Your task to perform on an android device: change the clock display to digital Image 0: 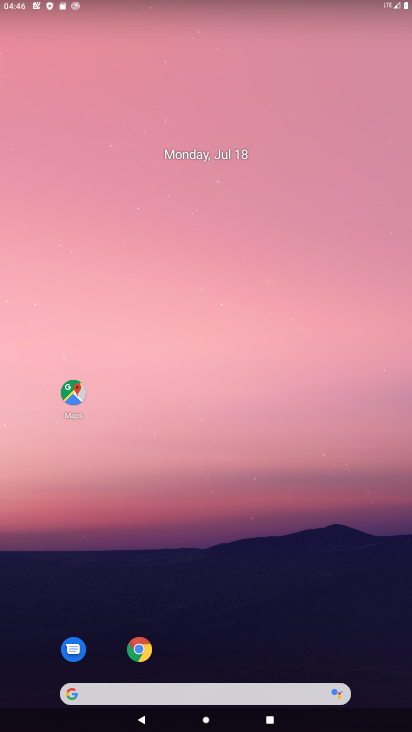
Step 0: drag from (231, 632) to (245, 92)
Your task to perform on an android device: change the clock display to digital Image 1: 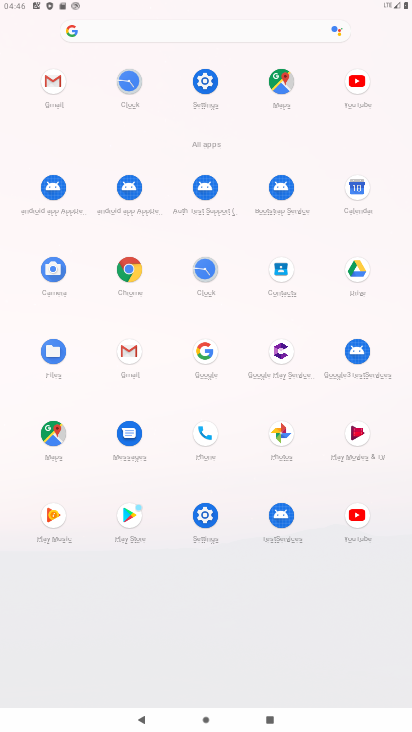
Step 1: click (139, 86)
Your task to perform on an android device: change the clock display to digital Image 2: 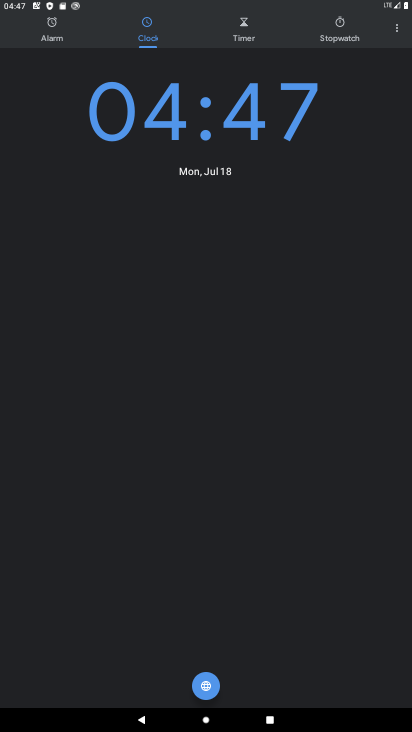
Step 2: click (392, 41)
Your task to perform on an android device: change the clock display to digital Image 3: 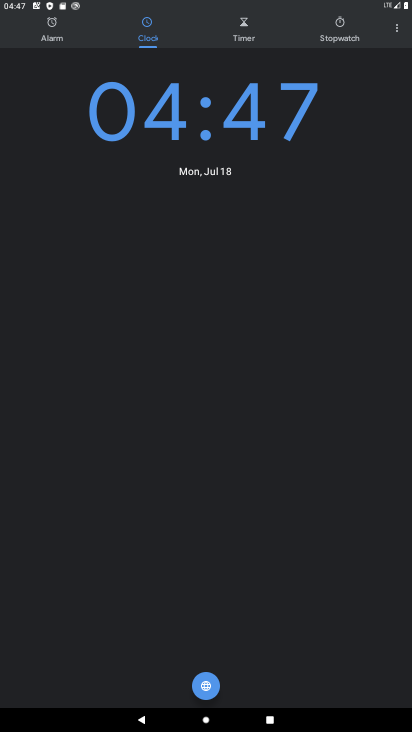
Step 3: click (403, 38)
Your task to perform on an android device: change the clock display to digital Image 4: 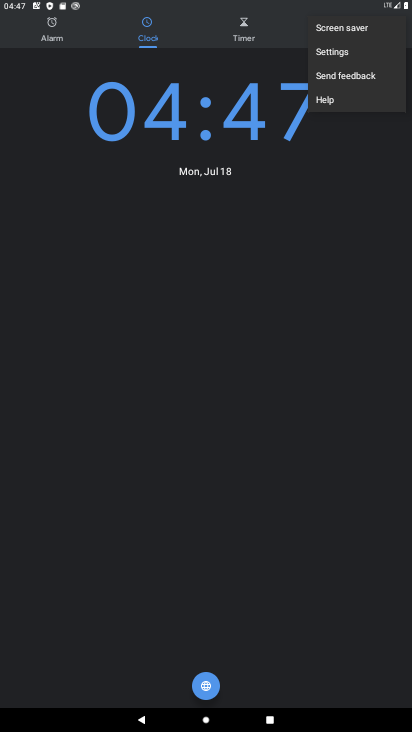
Step 4: click (335, 50)
Your task to perform on an android device: change the clock display to digital Image 5: 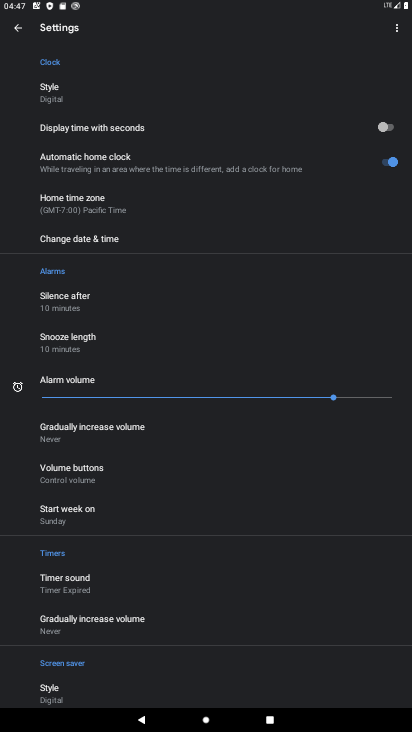
Step 5: task complete